Your task to perform on an android device: Open Google Image 0: 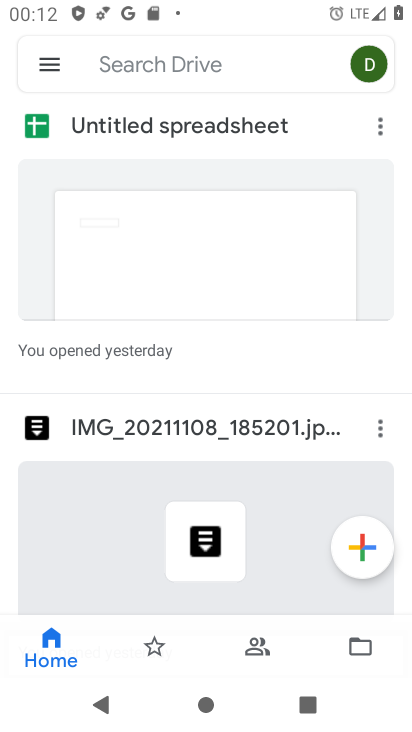
Step 0: press home button
Your task to perform on an android device: Open Google Image 1: 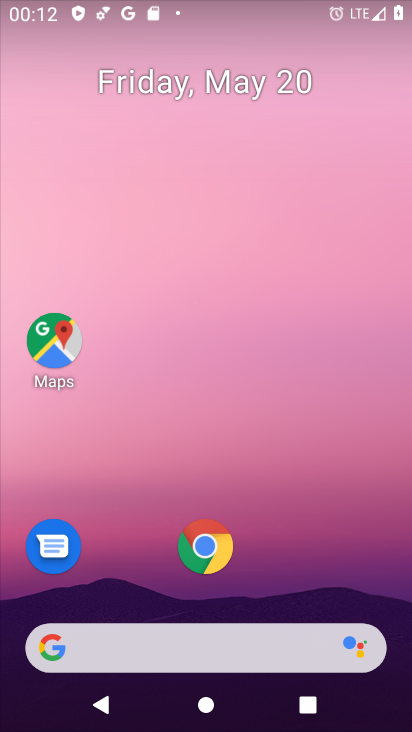
Step 1: drag from (356, 554) to (315, 202)
Your task to perform on an android device: Open Google Image 2: 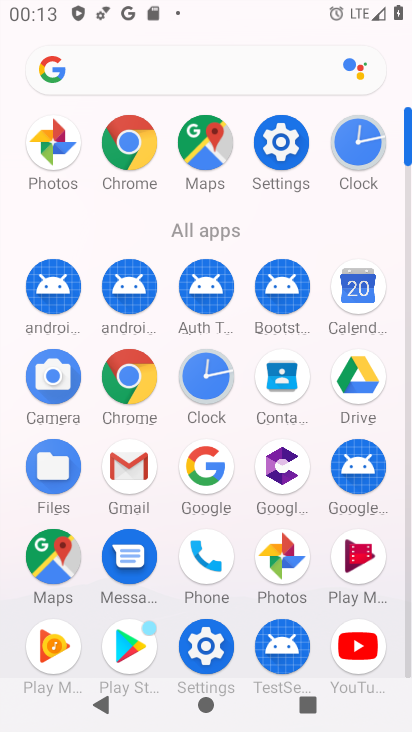
Step 2: click (218, 470)
Your task to perform on an android device: Open Google Image 3: 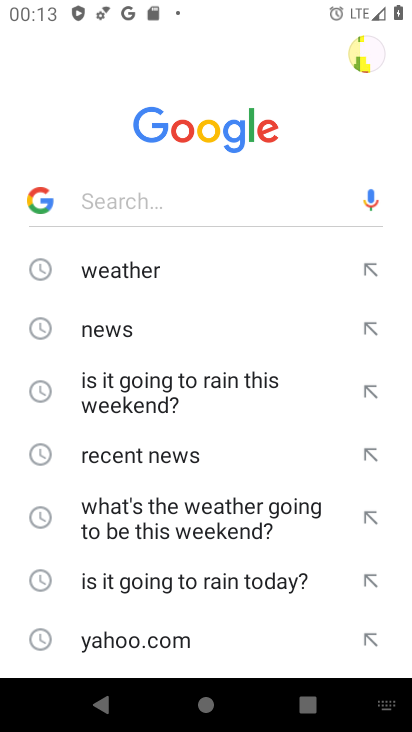
Step 3: task complete